Your task to perform on an android device: Search for vegetarian restaurants on Maps Image 0: 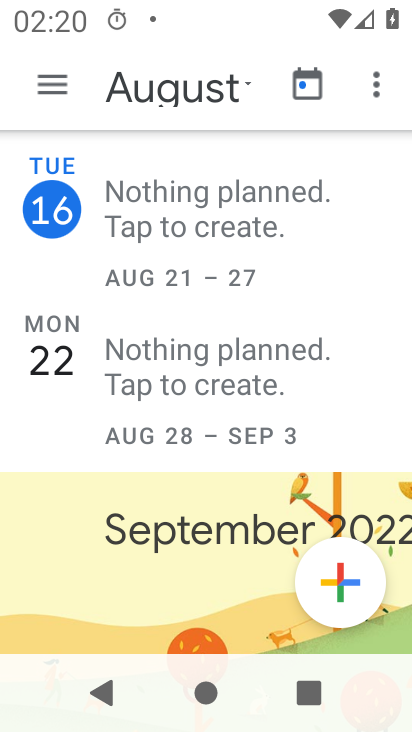
Step 0: press home button
Your task to perform on an android device: Search for vegetarian restaurants on Maps Image 1: 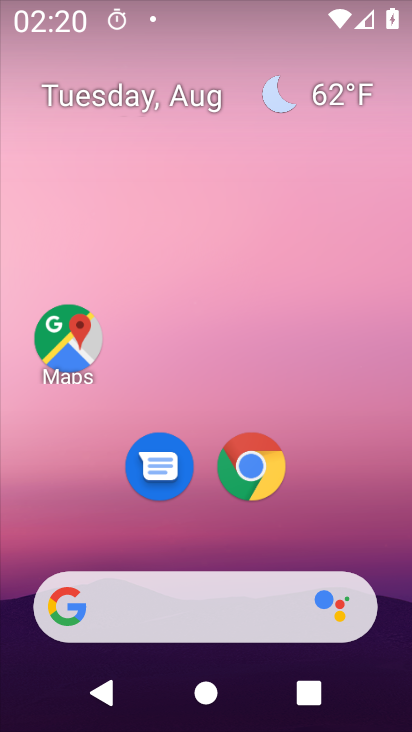
Step 1: drag from (384, 565) to (396, 126)
Your task to perform on an android device: Search for vegetarian restaurants on Maps Image 2: 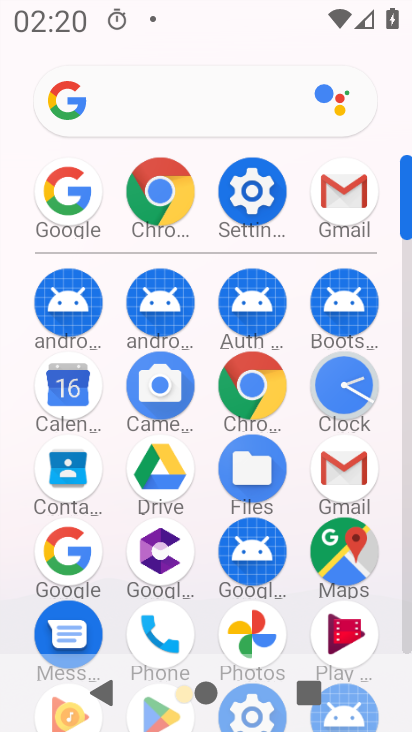
Step 2: click (344, 557)
Your task to perform on an android device: Search for vegetarian restaurants on Maps Image 3: 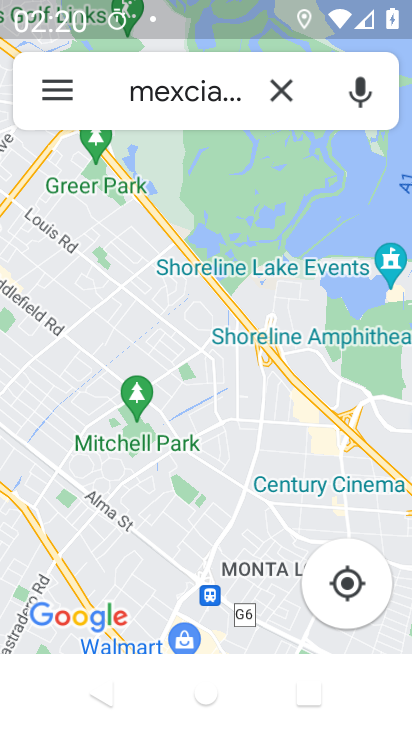
Step 3: press back button
Your task to perform on an android device: Search for vegetarian restaurants on Maps Image 4: 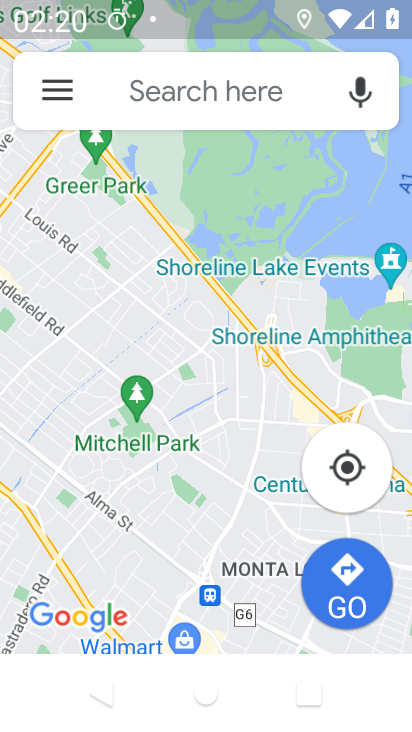
Step 4: click (262, 95)
Your task to perform on an android device: Search for vegetarian restaurants on Maps Image 5: 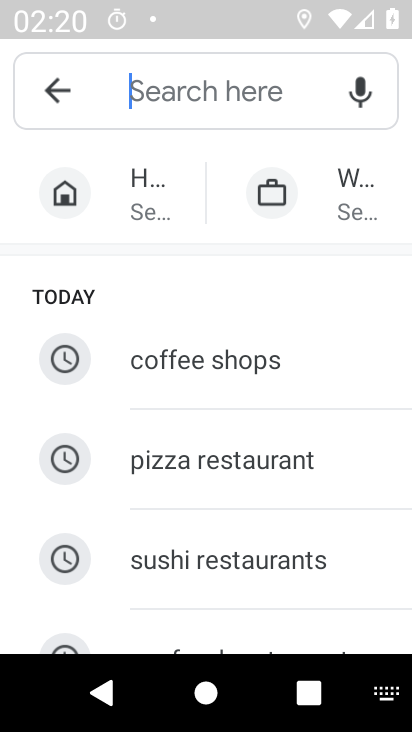
Step 5: type "vegetrain restaurants"
Your task to perform on an android device: Search for vegetarian restaurants on Maps Image 6: 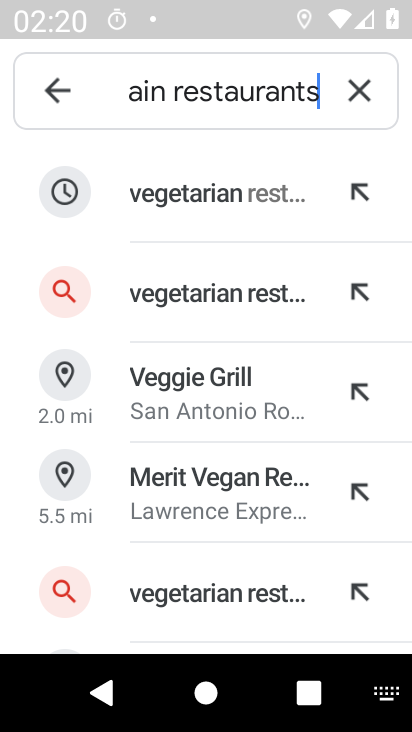
Step 6: click (267, 187)
Your task to perform on an android device: Search for vegetarian restaurants on Maps Image 7: 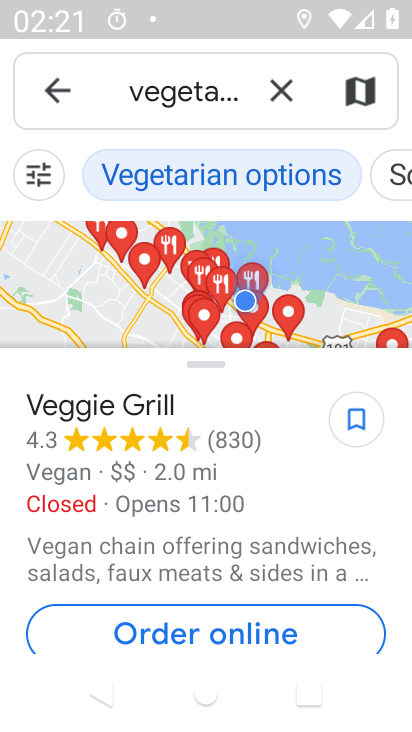
Step 7: task complete